Your task to perform on an android device: turn on airplane mode Image 0: 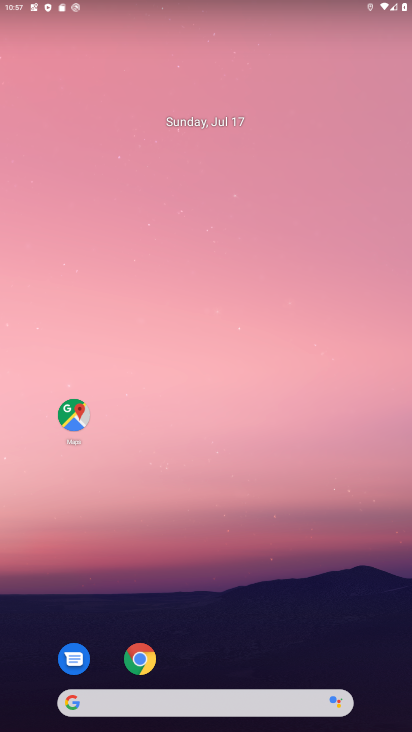
Step 0: drag from (281, 577) to (200, 101)
Your task to perform on an android device: turn on airplane mode Image 1: 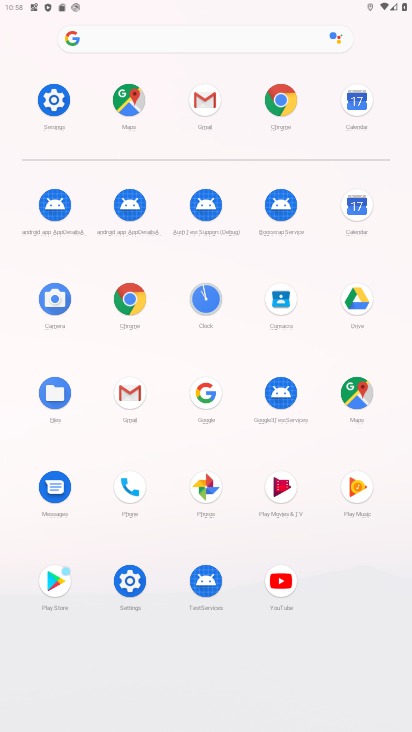
Step 1: click (60, 100)
Your task to perform on an android device: turn on airplane mode Image 2: 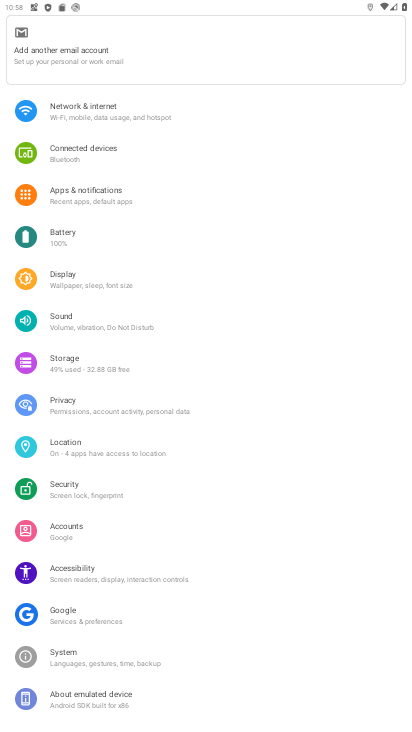
Step 2: click (136, 108)
Your task to perform on an android device: turn on airplane mode Image 3: 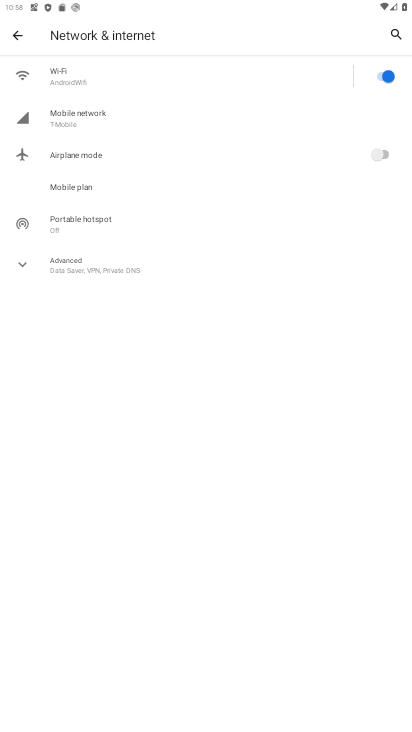
Step 3: click (387, 156)
Your task to perform on an android device: turn on airplane mode Image 4: 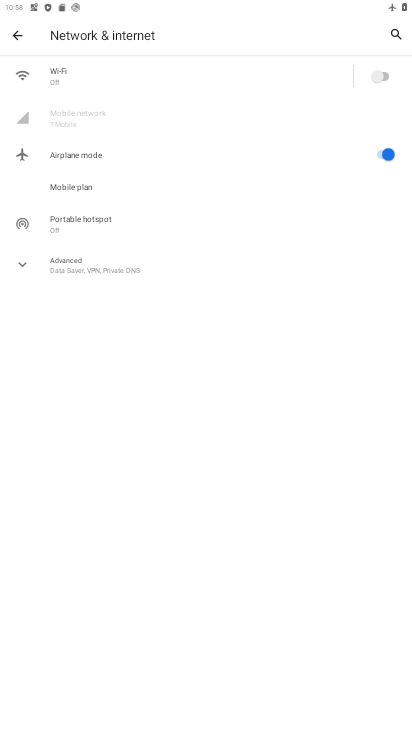
Step 4: task complete